Your task to perform on an android device: Go to settings Image 0: 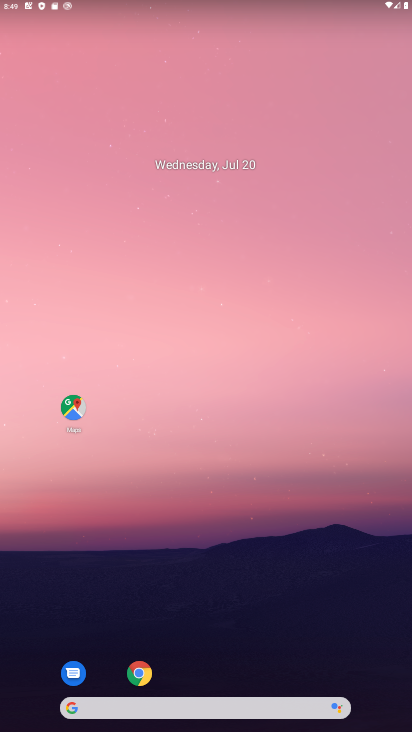
Step 0: drag from (121, 594) to (194, 64)
Your task to perform on an android device: Go to settings Image 1: 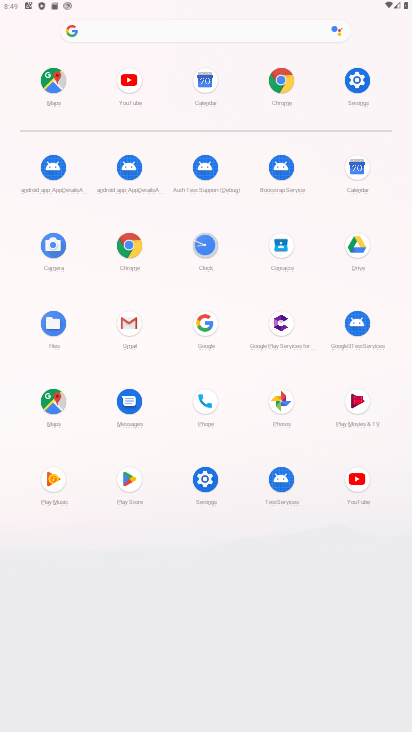
Step 1: click (205, 467)
Your task to perform on an android device: Go to settings Image 2: 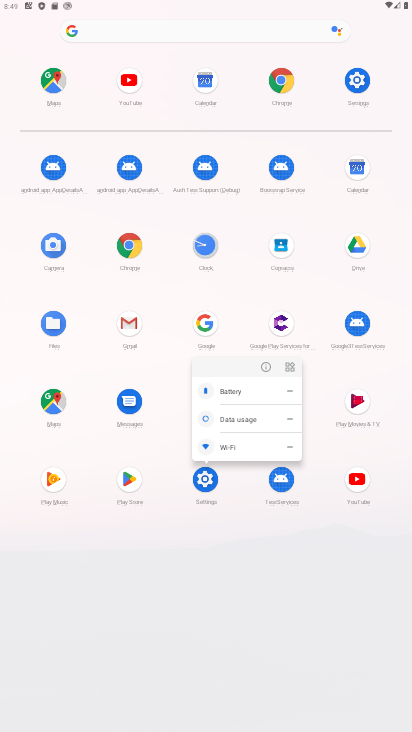
Step 2: click (262, 365)
Your task to perform on an android device: Go to settings Image 3: 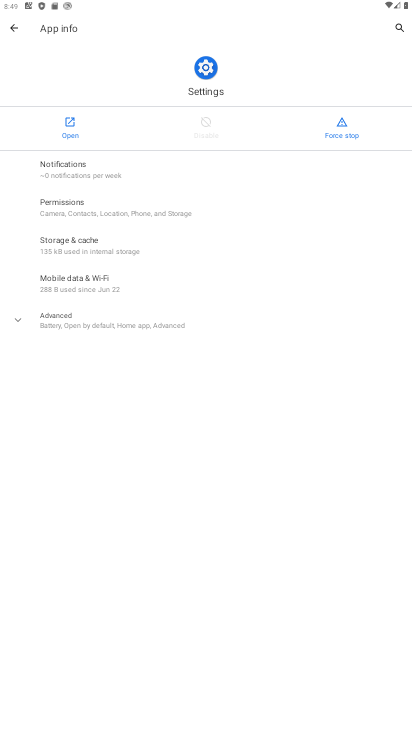
Step 3: click (55, 126)
Your task to perform on an android device: Go to settings Image 4: 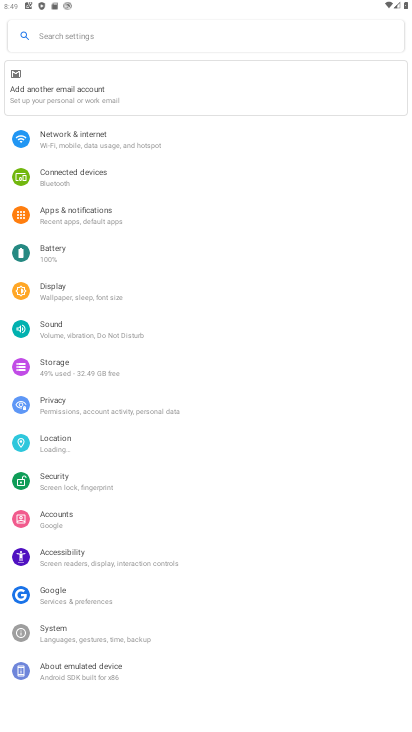
Step 4: task complete